Your task to perform on an android device: move a message to another label in the gmail app Image 0: 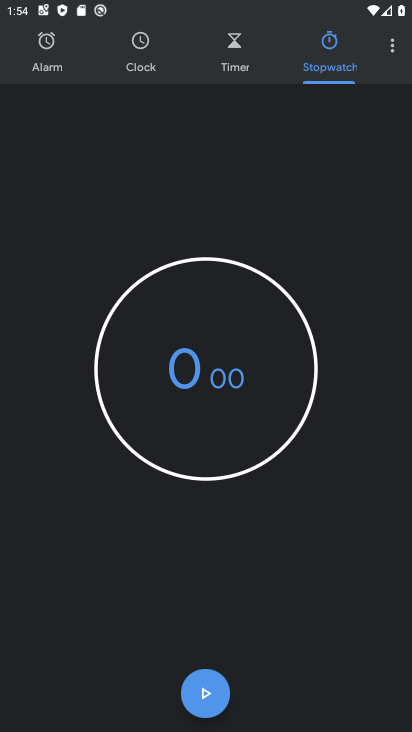
Step 0: press back button
Your task to perform on an android device: move a message to another label in the gmail app Image 1: 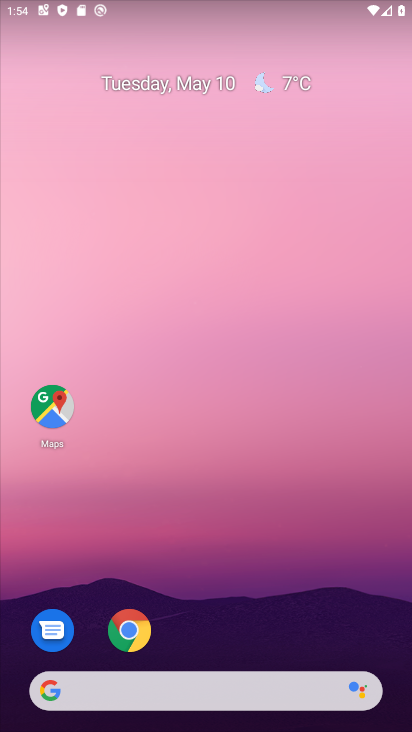
Step 1: drag from (267, 585) to (231, 13)
Your task to perform on an android device: move a message to another label in the gmail app Image 2: 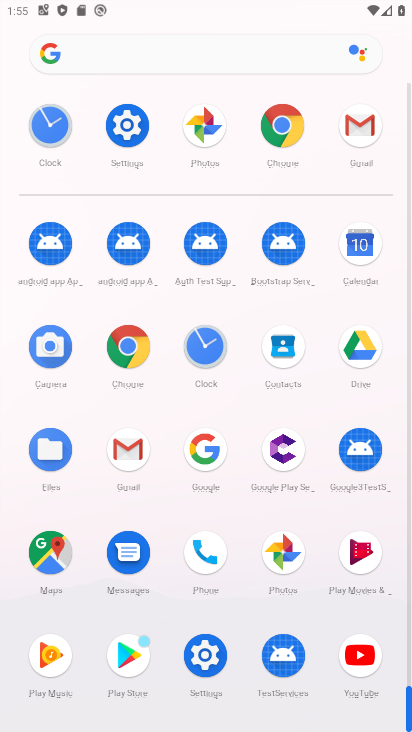
Step 2: click (126, 448)
Your task to perform on an android device: move a message to another label in the gmail app Image 3: 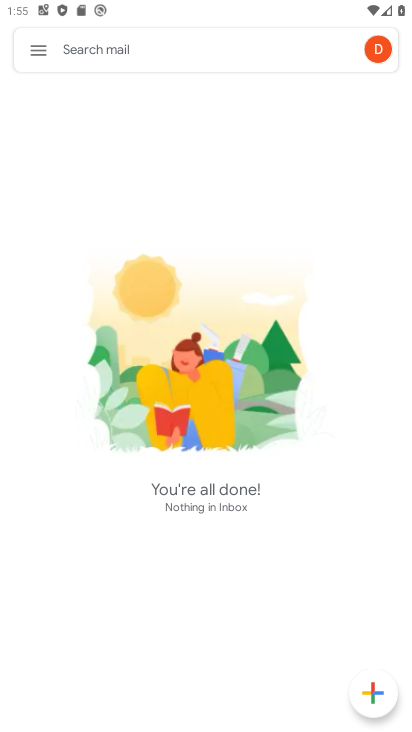
Step 3: click (28, 49)
Your task to perform on an android device: move a message to another label in the gmail app Image 4: 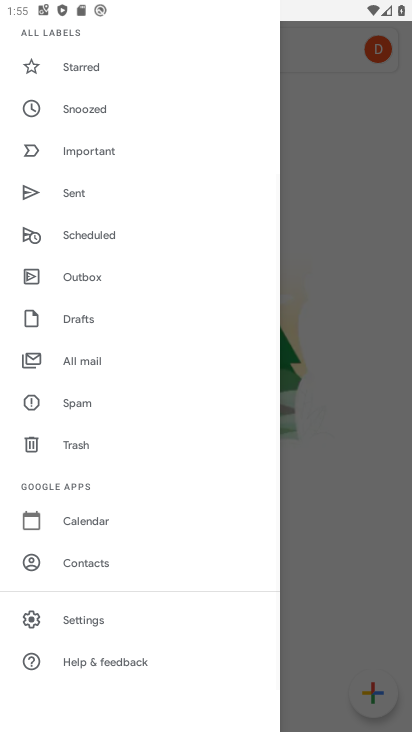
Step 4: drag from (156, 591) to (153, 244)
Your task to perform on an android device: move a message to another label in the gmail app Image 5: 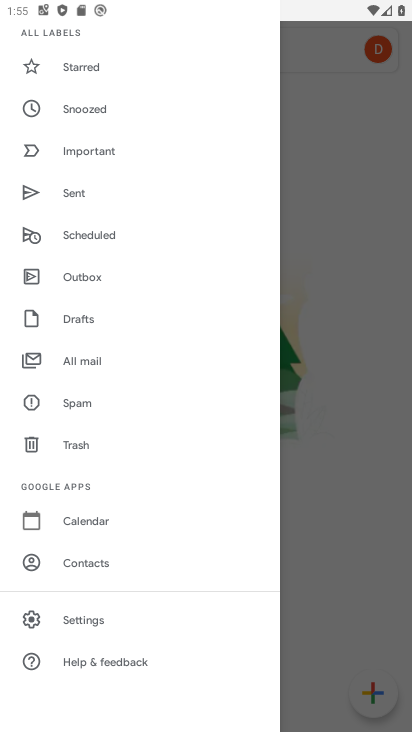
Step 5: click (87, 350)
Your task to perform on an android device: move a message to another label in the gmail app Image 6: 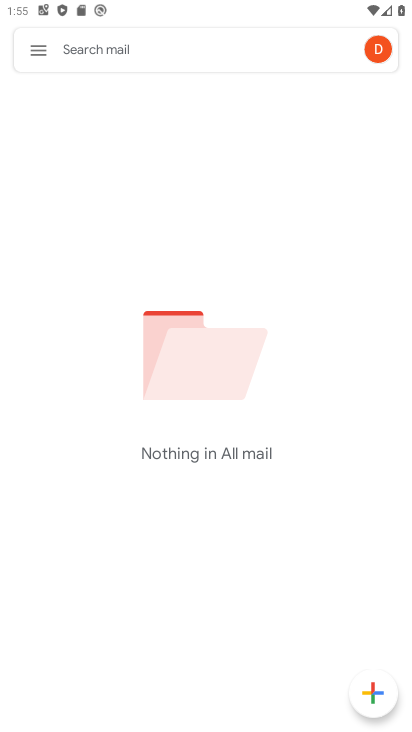
Step 6: click (44, 47)
Your task to perform on an android device: move a message to another label in the gmail app Image 7: 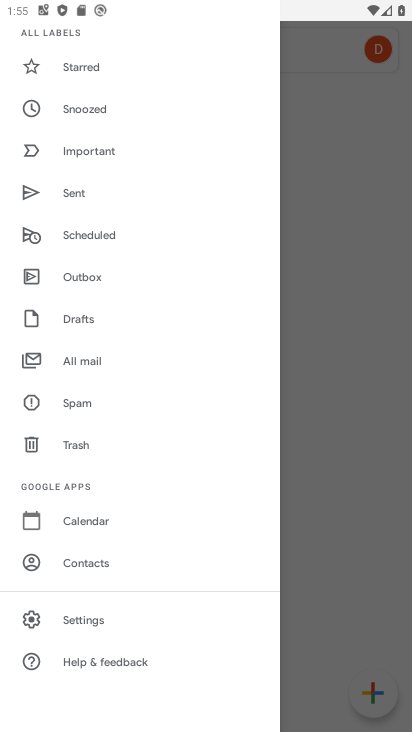
Step 7: drag from (138, 108) to (162, 518)
Your task to perform on an android device: move a message to another label in the gmail app Image 8: 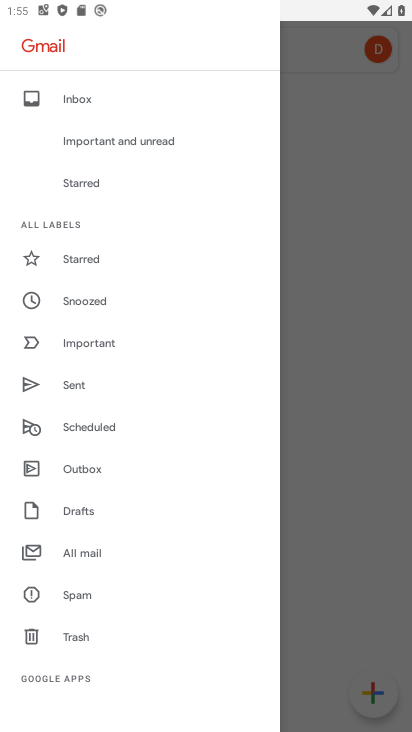
Step 8: click (91, 253)
Your task to perform on an android device: move a message to another label in the gmail app Image 9: 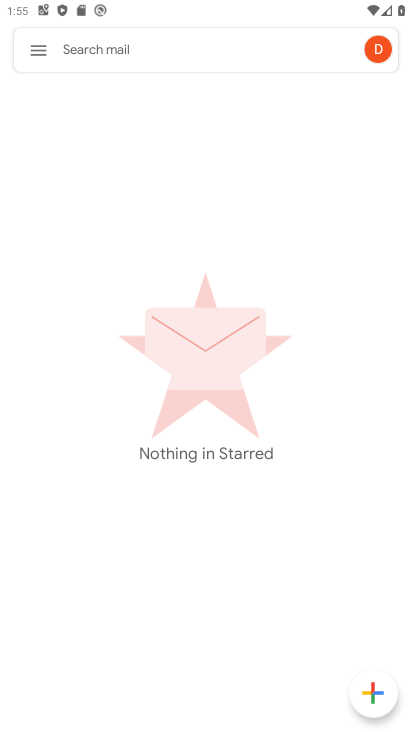
Step 9: task complete